Your task to perform on an android device: show emergency info Image 0: 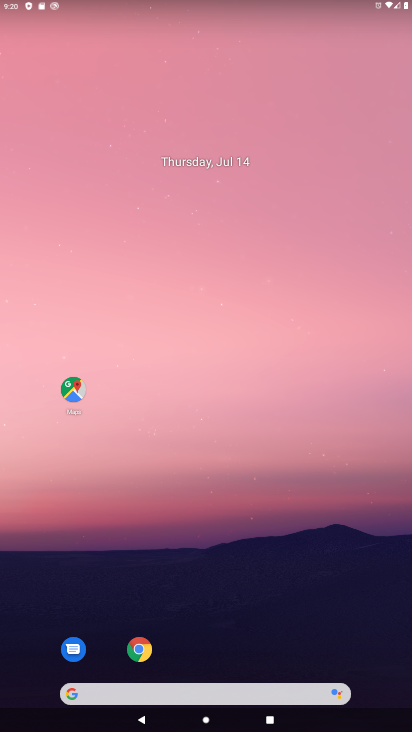
Step 0: drag from (187, 722) to (246, 0)
Your task to perform on an android device: show emergency info Image 1: 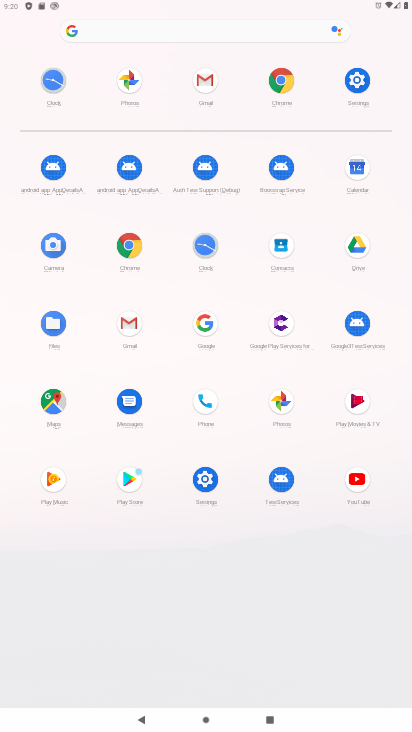
Step 1: click (361, 91)
Your task to perform on an android device: show emergency info Image 2: 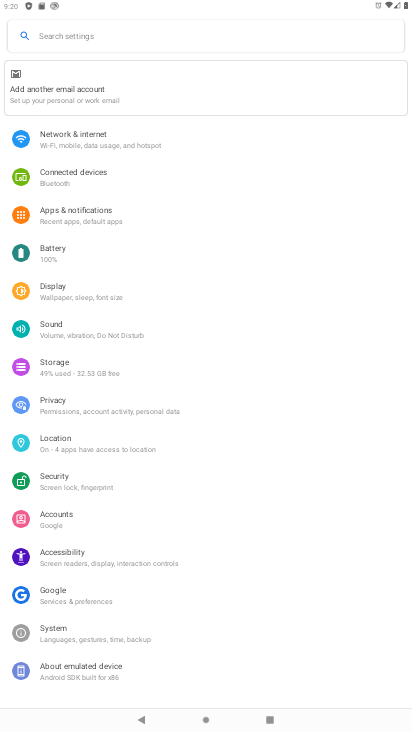
Step 2: click (118, 667)
Your task to perform on an android device: show emergency info Image 3: 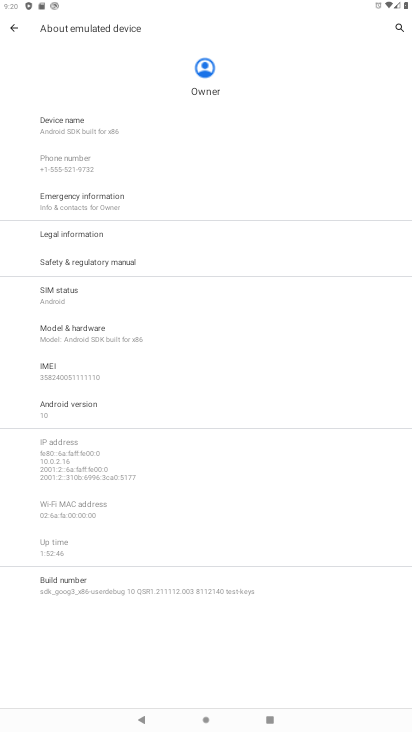
Step 3: click (173, 198)
Your task to perform on an android device: show emergency info Image 4: 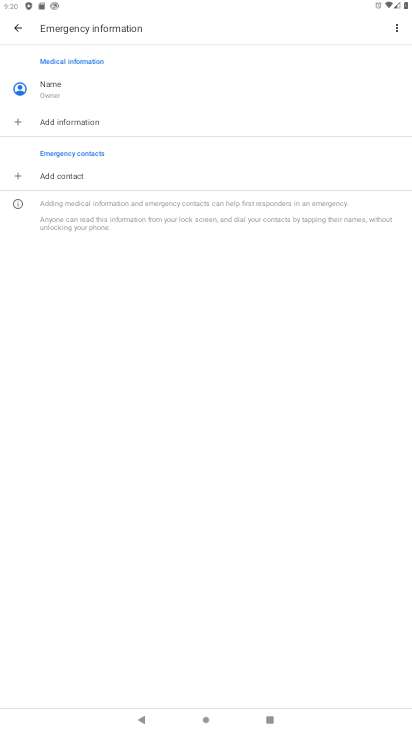
Step 4: task complete